Your task to perform on an android device: change keyboard looks Image 0: 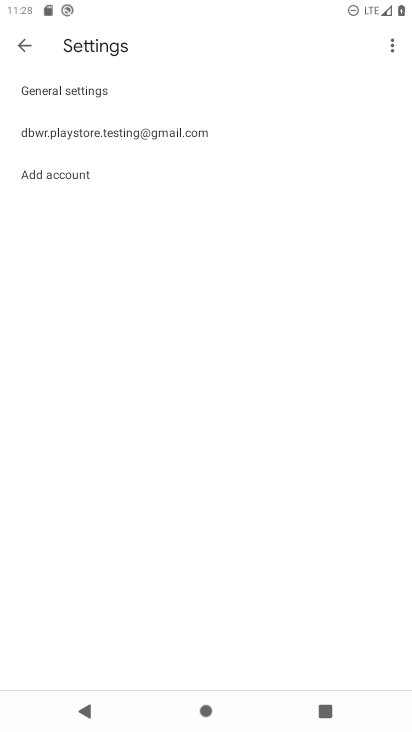
Step 0: press home button
Your task to perform on an android device: change keyboard looks Image 1: 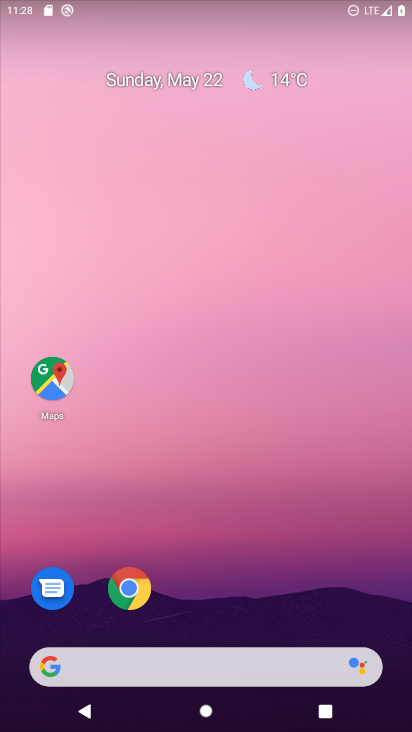
Step 1: drag from (199, 596) to (199, 106)
Your task to perform on an android device: change keyboard looks Image 2: 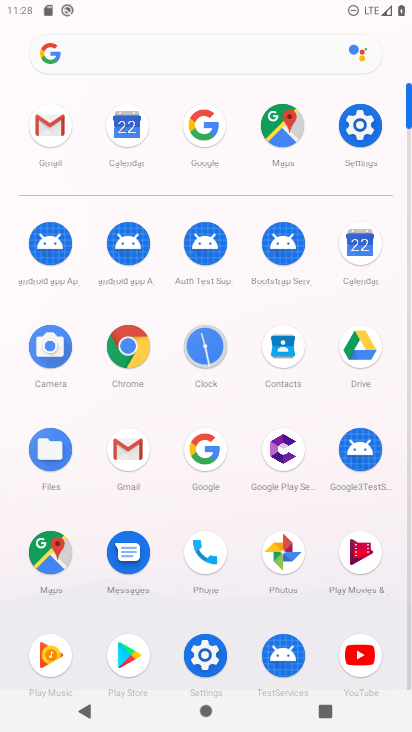
Step 2: click (361, 121)
Your task to perform on an android device: change keyboard looks Image 3: 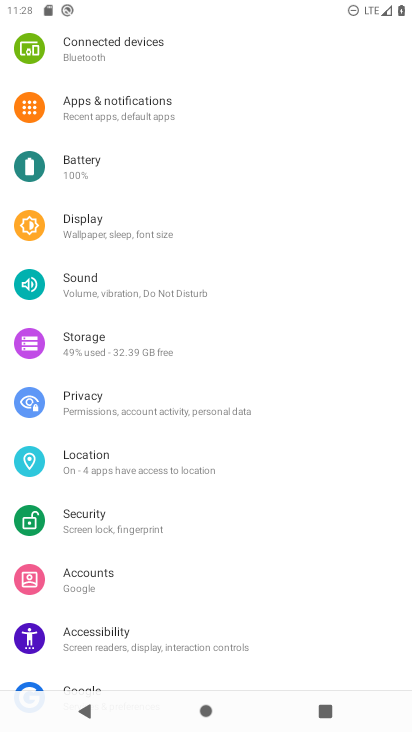
Step 3: drag from (133, 583) to (149, 252)
Your task to perform on an android device: change keyboard looks Image 4: 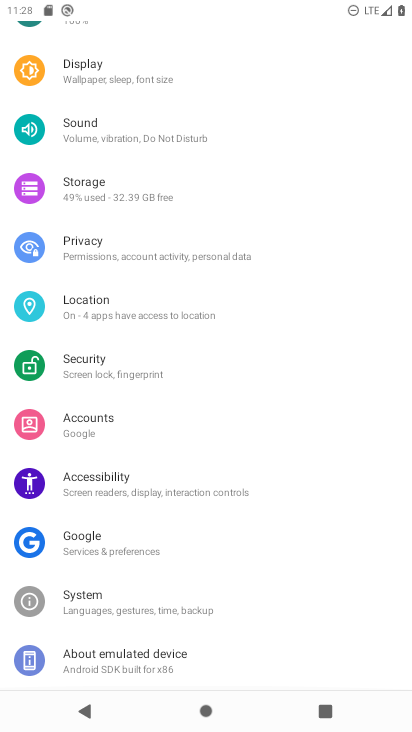
Step 4: click (149, 609)
Your task to perform on an android device: change keyboard looks Image 5: 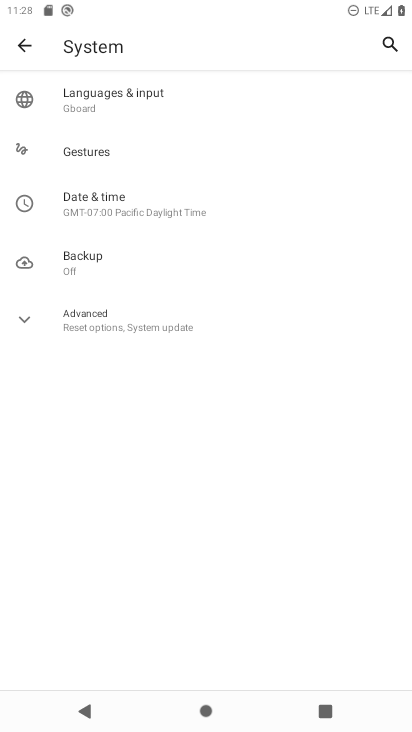
Step 5: click (134, 101)
Your task to perform on an android device: change keyboard looks Image 6: 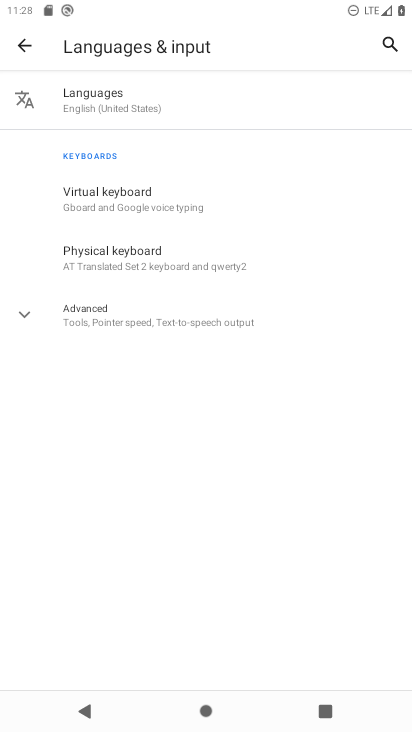
Step 6: click (148, 197)
Your task to perform on an android device: change keyboard looks Image 7: 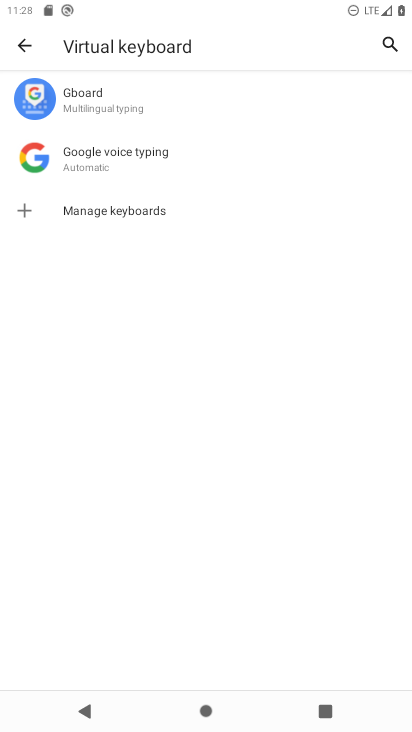
Step 7: click (95, 100)
Your task to perform on an android device: change keyboard looks Image 8: 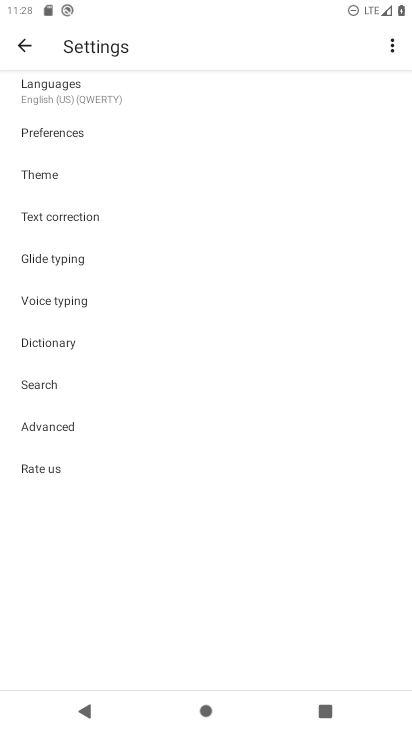
Step 8: click (69, 175)
Your task to perform on an android device: change keyboard looks Image 9: 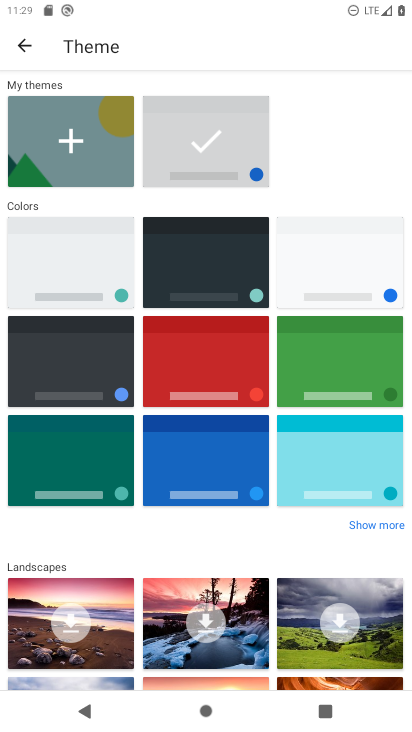
Step 9: click (101, 351)
Your task to perform on an android device: change keyboard looks Image 10: 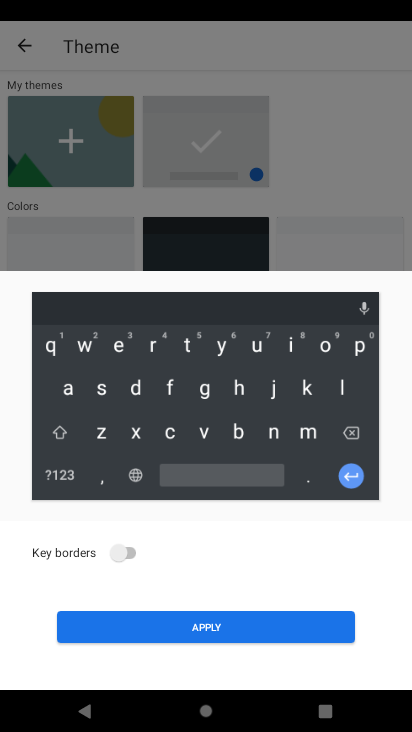
Step 10: click (272, 622)
Your task to perform on an android device: change keyboard looks Image 11: 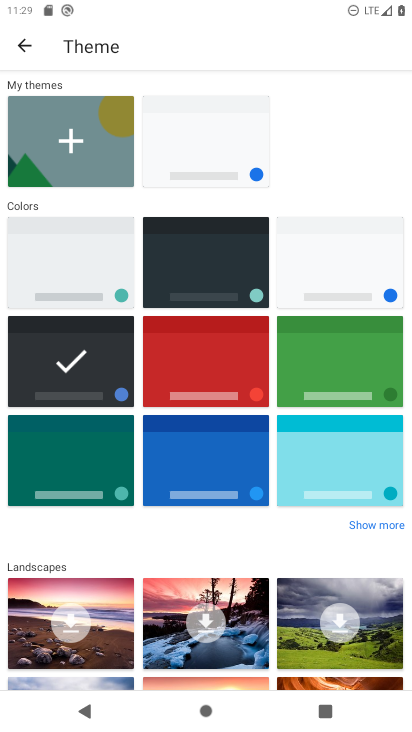
Step 11: task complete